Your task to perform on an android device: choose inbox layout in the gmail app Image 0: 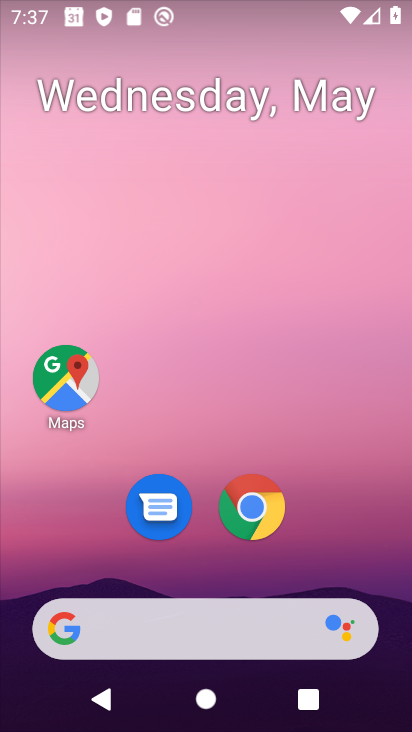
Step 0: drag from (282, 502) to (278, 281)
Your task to perform on an android device: choose inbox layout in the gmail app Image 1: 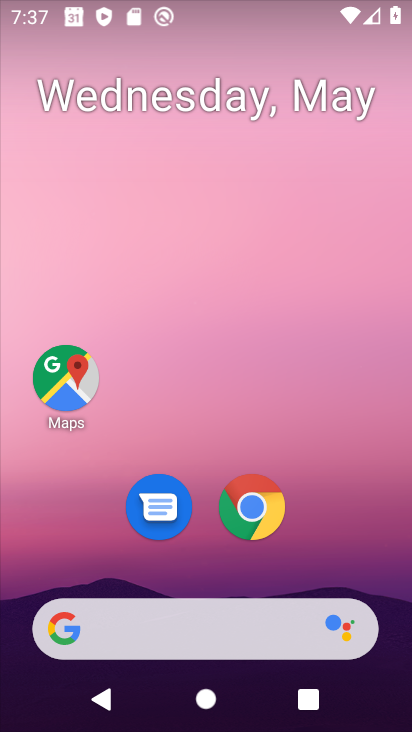
Step 1: drag from (306, 441) to (290, 220)
Your task to perform on an android device: choose inbox layout in the gmail app Image 2: 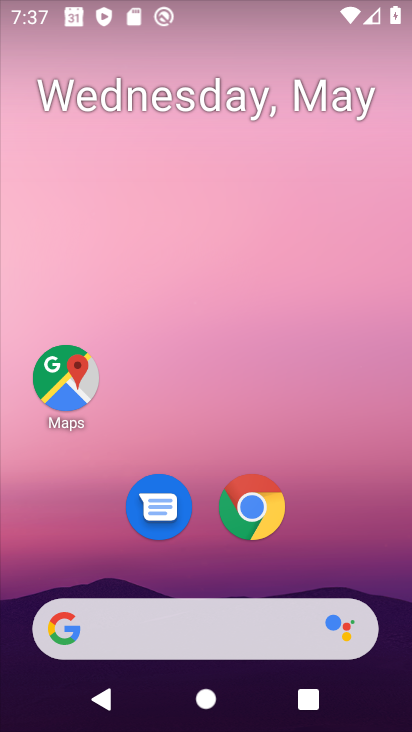
Step 2: drag from (313, 505) to (279, 246)
Your task to perform on an android device: choose inbox layout in the gmail app Image 3: 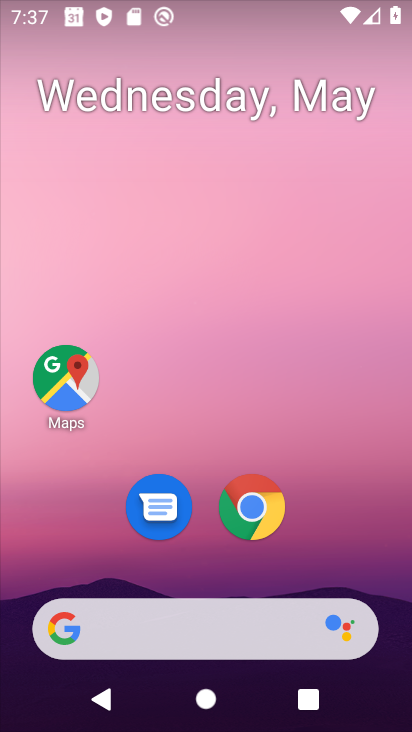
Step 3: drag from (317, 509) to (288, 202)
Your task to perform on an android device: choose inbox layout in the gmail app Image 4: 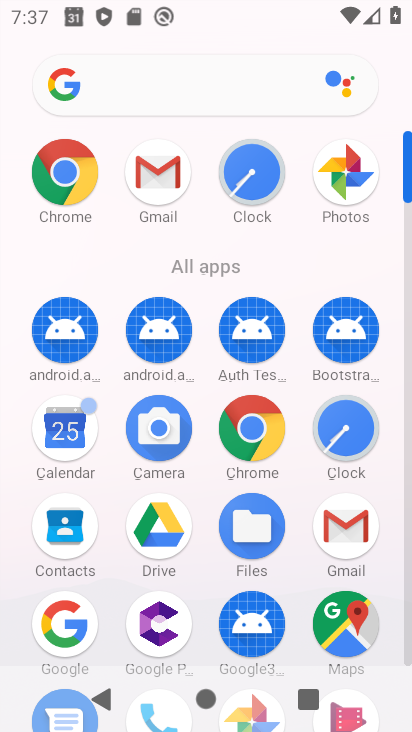
Step 4: click (350, 523)
Your task to perform on an android device: choose inbox layout in the gmail app Image 5: 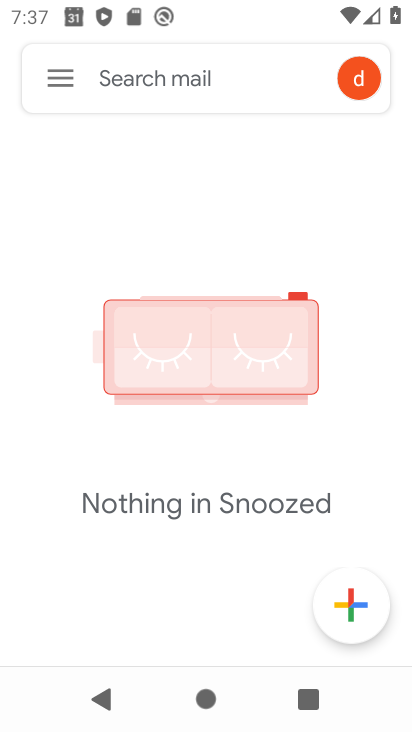
Step 5: click (66, 71)
Your task to perform on an android device: choose inbox layout in the gmail app Image 6: 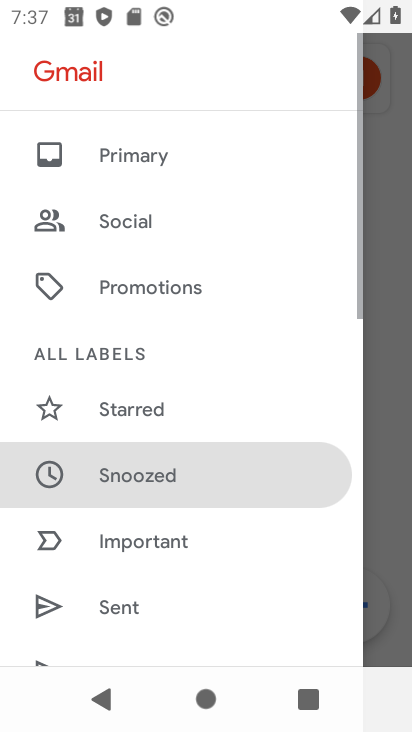
Step 6: drag from (235, 515) to (229, 175)
Your task to perform on an android device: choose inbox layout in the gmail app Image 7: 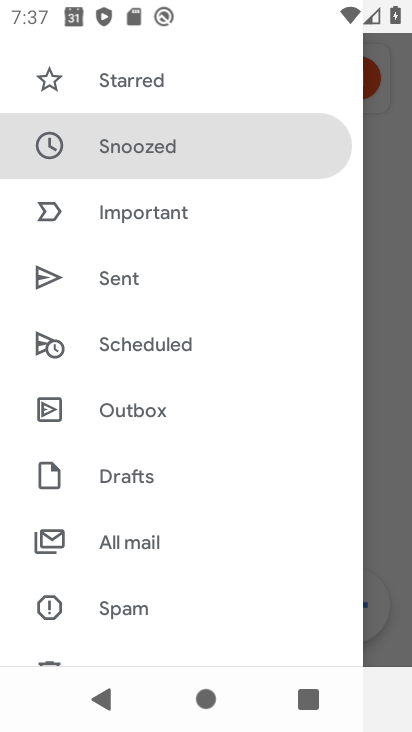
Step 7: drag from (158, 616) to (188, 243)
Your task to perform on an android device: choose inbox layout in the gmail app Image 8: 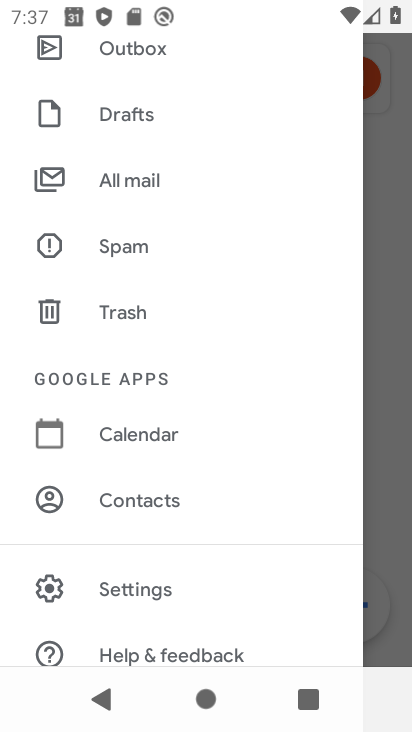
Step 8: click (154, 581)
Your task to perform on an android device: choose inbox layout in the gmail app Image 9: 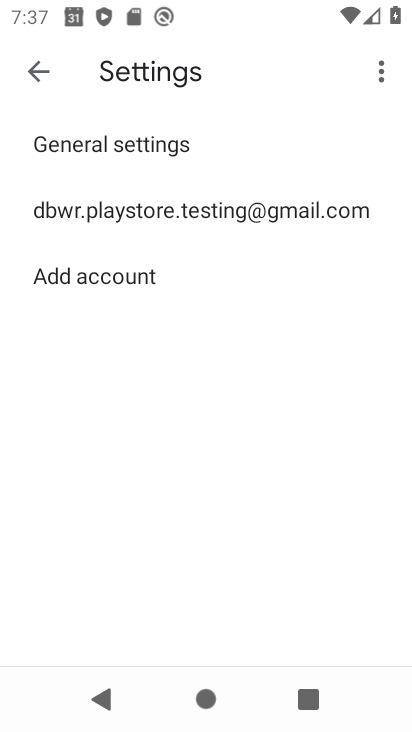
Step 9: click (235, 216)
Your task to perform on an android device: choose inbox layout in the gmail app Image 10: 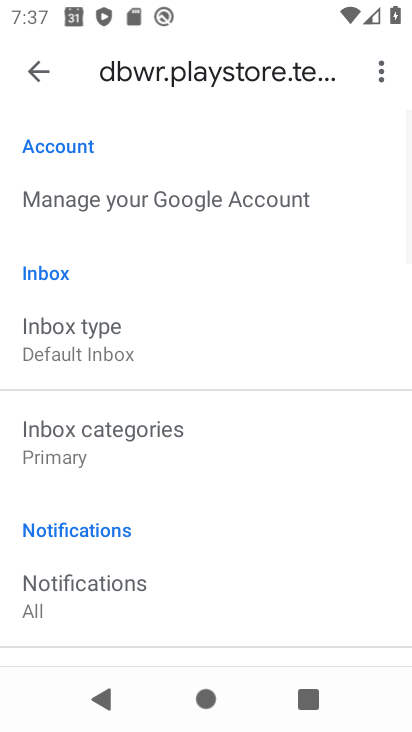
Step 10: click (128, 334)
Your task to perform on an android device: choose inbox layout in the gmail app Image 11: 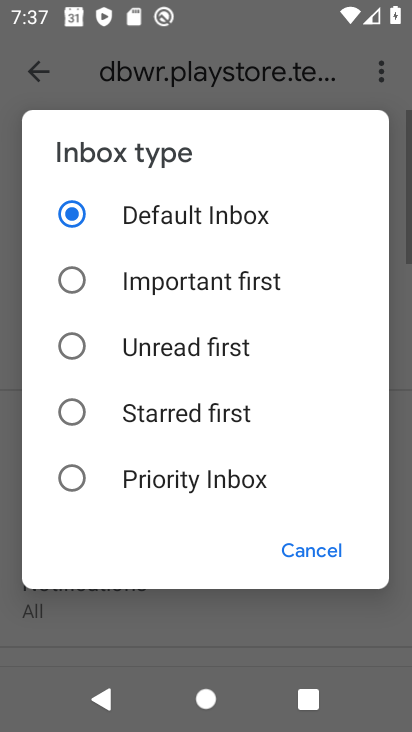
Step 11: click (168, 348)
Your task to perform on an android device: choose inbox layout in the gmail app Image 12: 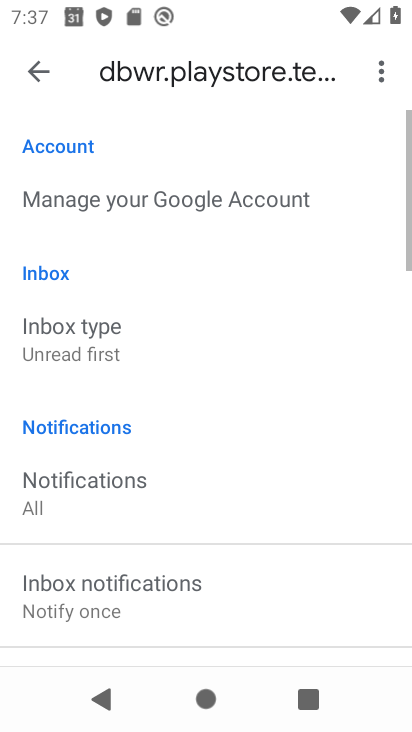
Step 12: task complete